Your task to perform on an android device: check android version Image 0: 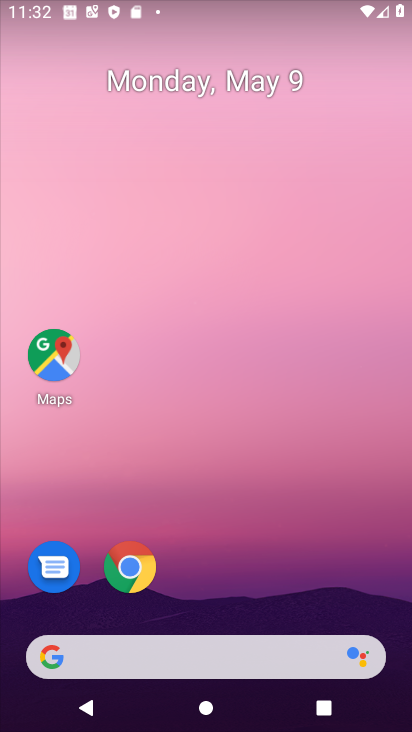
Step 0: drag from (219, 656) to (211, 190)
Your task to perform on an android device: check android version Image 1: 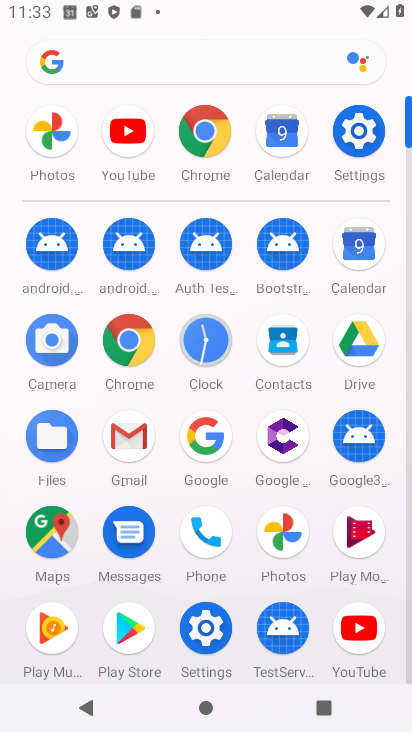
Step 1: click (362, 126)
Your task to perform on an android device: check android version Image 2: 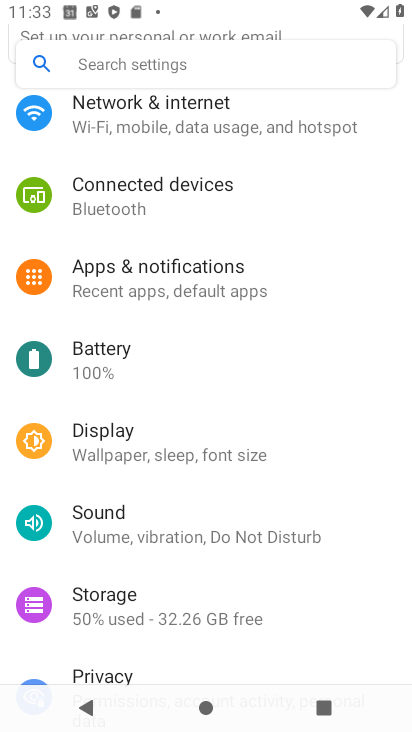
Step 2: drag from (168, 582) to (156, 100)
Your task to perform on an android device: check android version Image 3: 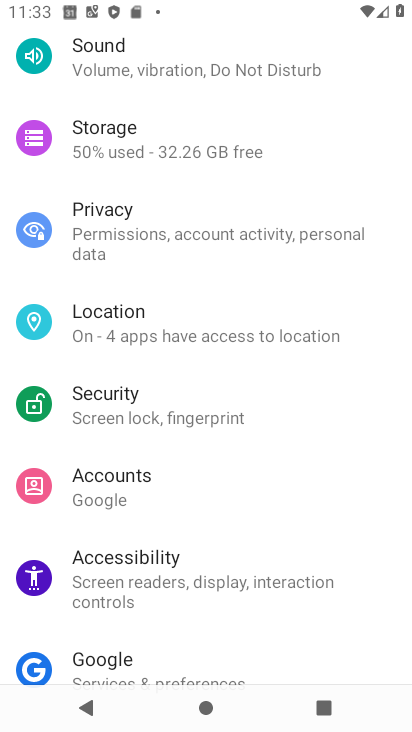
Step 3: drag from (155, 651) to (101, 134)
Your task to perform on an android device: check android version Image 4: 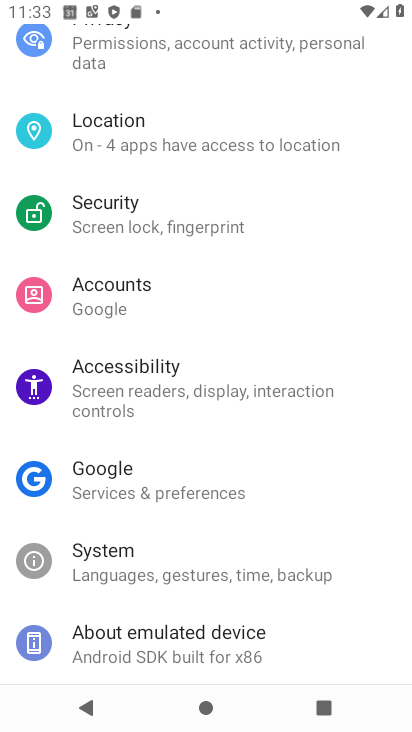
Step 4: click (109, 648)
Your task to perform on an android device: check android version Image 5: 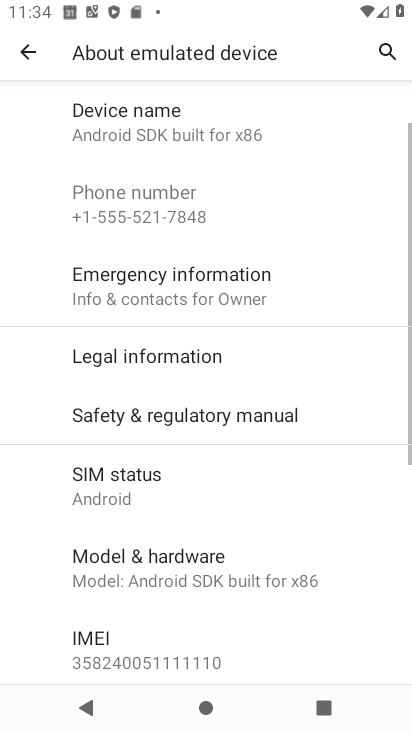
Step 5: drag from (191, 554) to (225, 141)
Your task to perform on an android device: check android version Image 6: 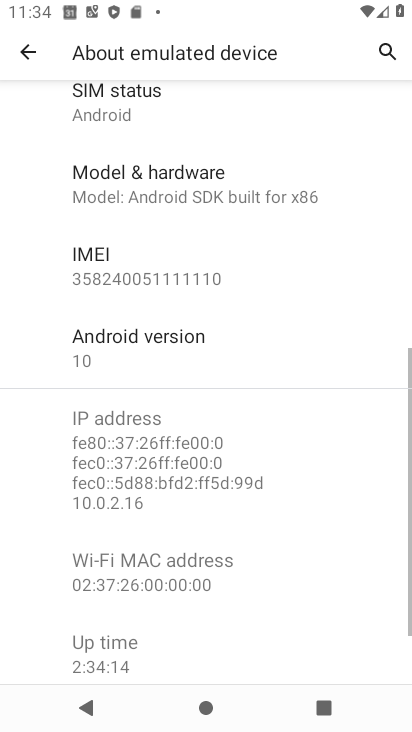
Step 6: click (165, 338)
Your task to perform on an android device: check android version Image 7: 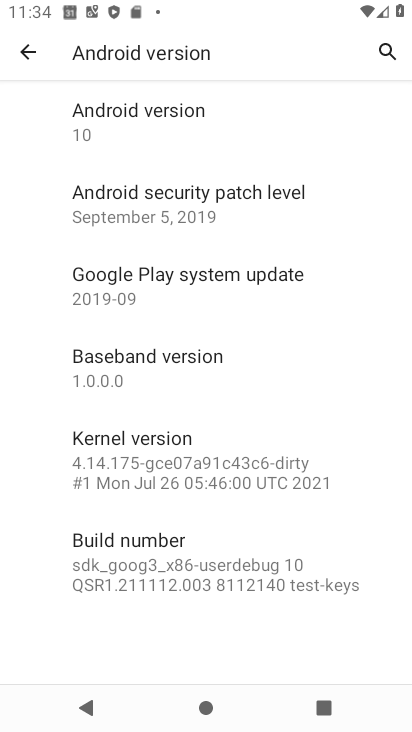
Step 7: task complete